Your task to perform on an android device: Open privacy settings Image 0: 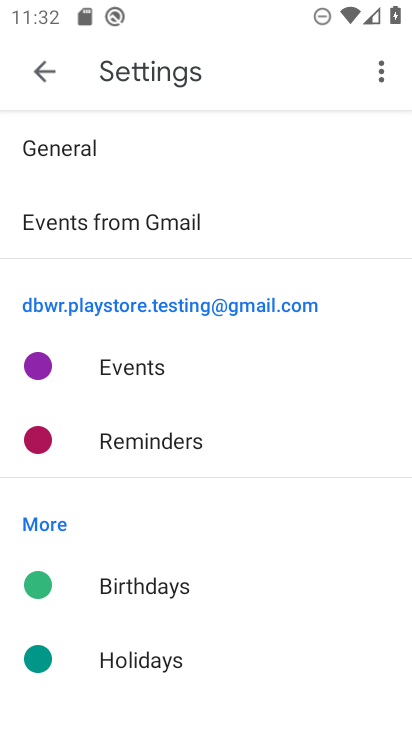
Step 0: press home button
Your task to perform on an android device: Open privacy settings Image 1: 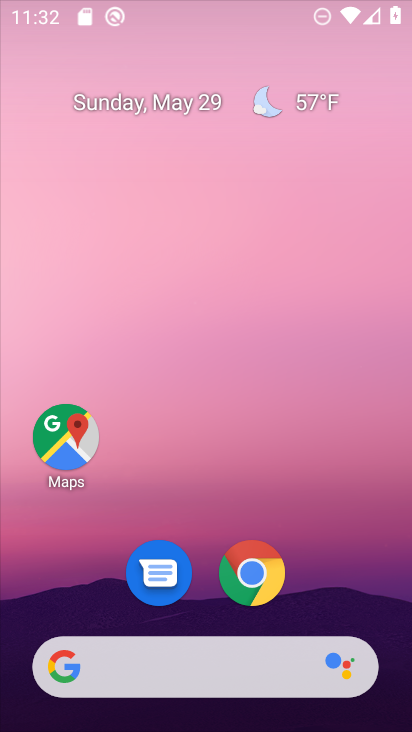
Step 1: drag from (306, 672) to (317, 167)
Your task to perform on an android device: Open privacy settings Image 2: 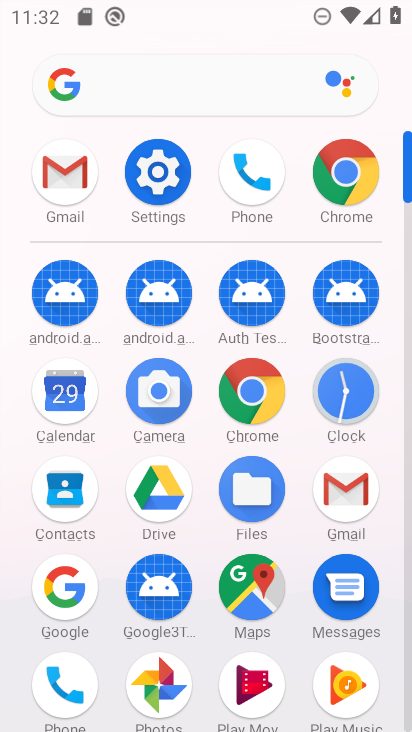
Step 2: click (160, 169)
Your task to perform on an android device: Open privacy settings Image 3: 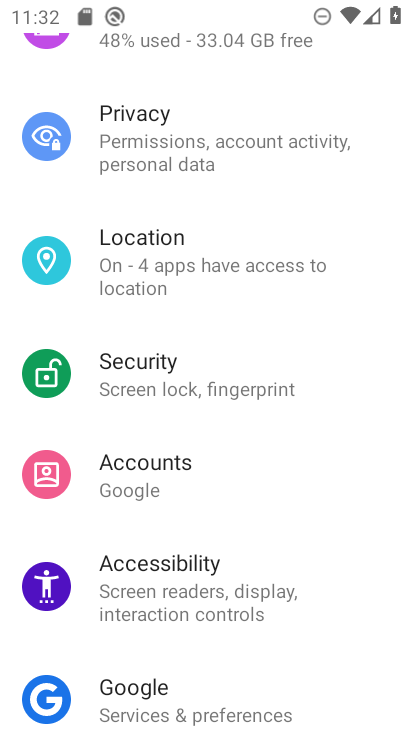
Step 3: click (190, 151)
Your task to perform on an android device: Open privacy settings Image 4: 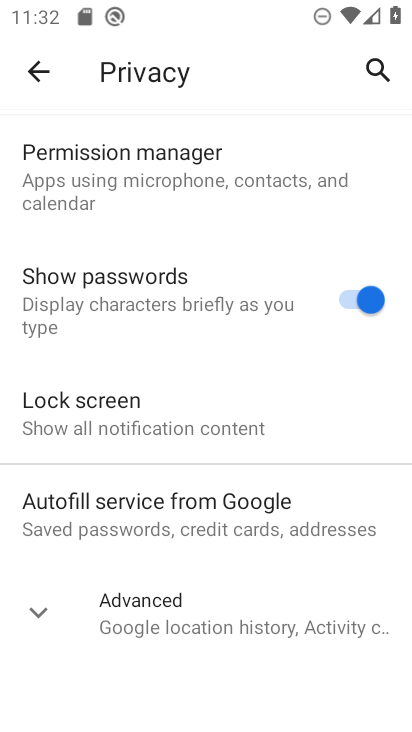
Step 4: task complete